Your task to perform on an android device: open a bookmark in the chrome app Image 0: 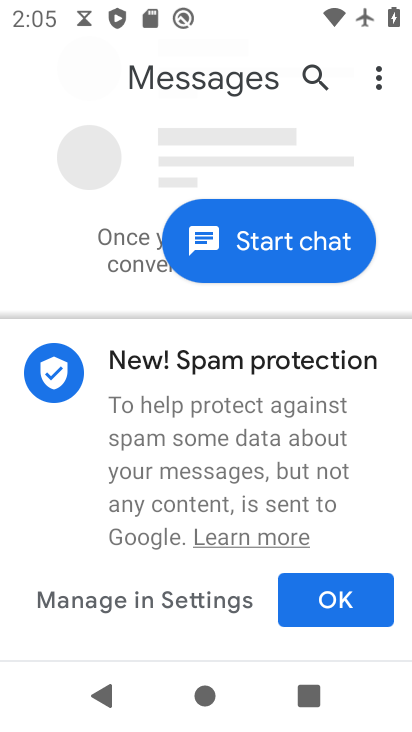
Step 0: press home button
Your task to perform on an android device: open a bookmark in the chrome app Image 1: 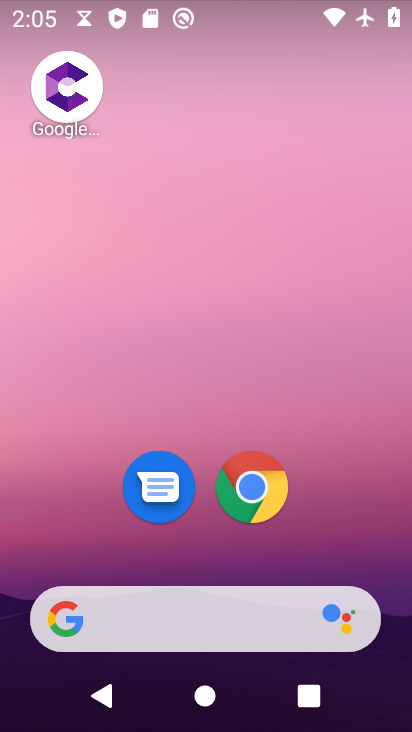
Step 1: drag from (178, 584) to (299, 130)
Your task to perform on an android device: open a bookmark in the chrome app Image 2: 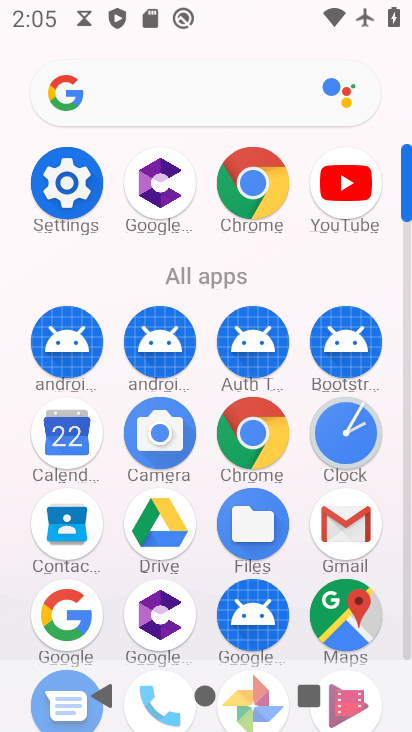
Step 2: click (254, 196)
Your task to perform on an android device: open a bookmark in the chrome app Image 3: 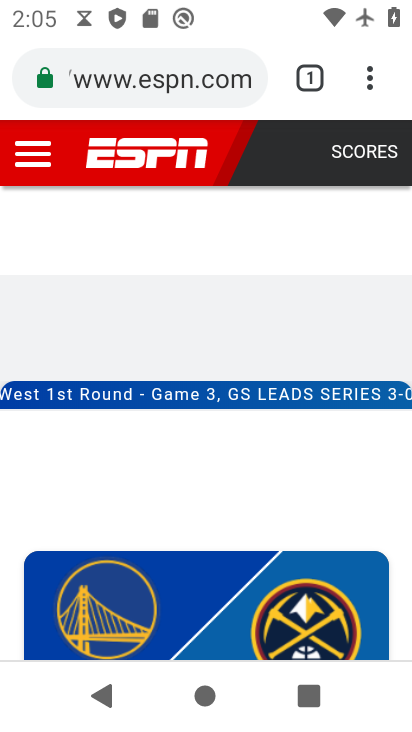
Step 3: drag from (369, 80) to (129, 298)
Your task to perform on an android device: open a bookmark in the chrome app Image 4: 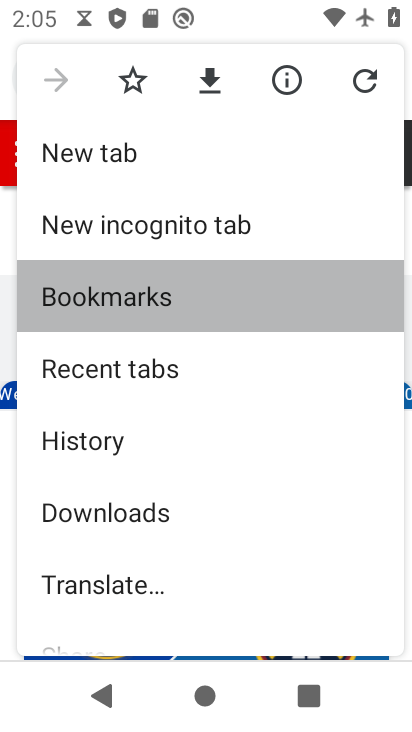
Step 4: click (129, 299)
Your task to perform on an android device: open a bookmark in the chrome app Image 5: 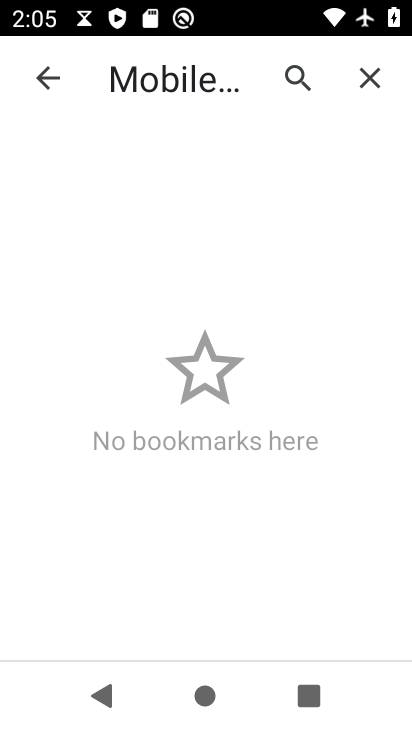
Step 5: task complete